Your task to perform on an android device: Open Google Image 0: 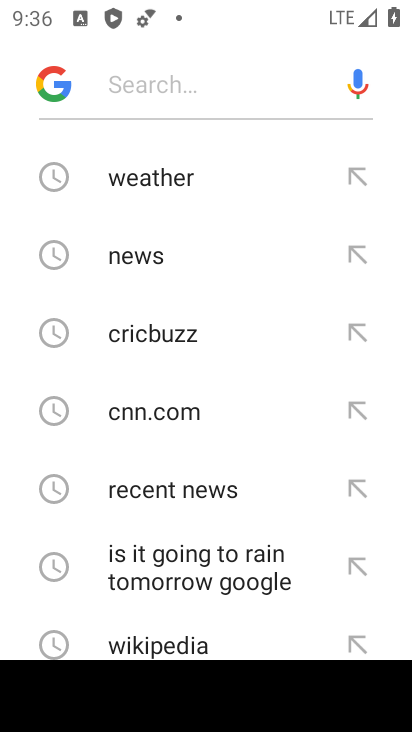
Step 0: click (215, 729)
Your task to perform on an android device: Open Google Image 1: 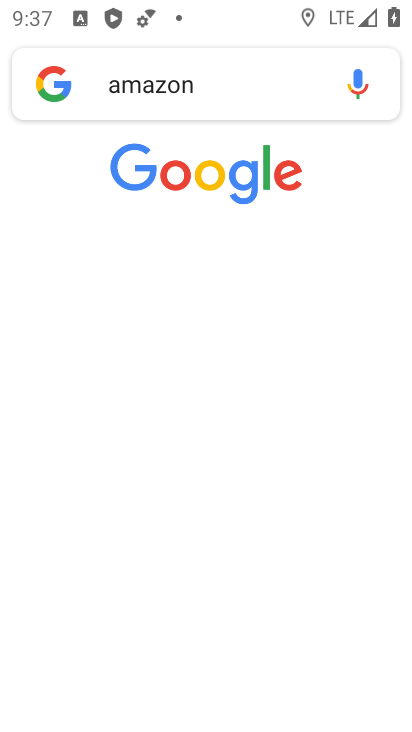
Step 1: press home button
Your task to perform on an android device: Open Google Image 2: 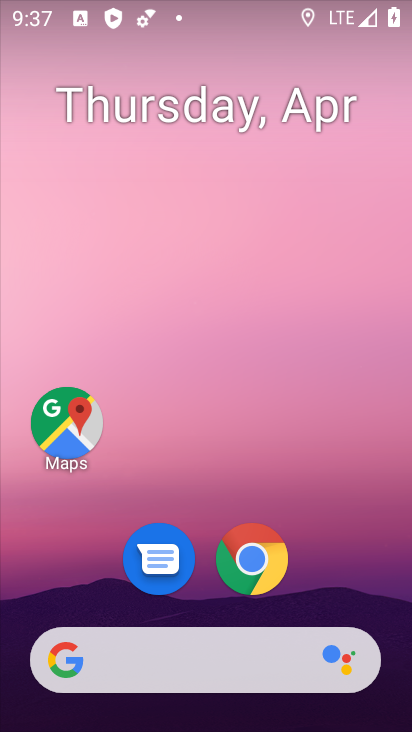
Step 2: drag from (213, 522) to (172, 143)
Your task to perform on an android device: Open Google Image 3: 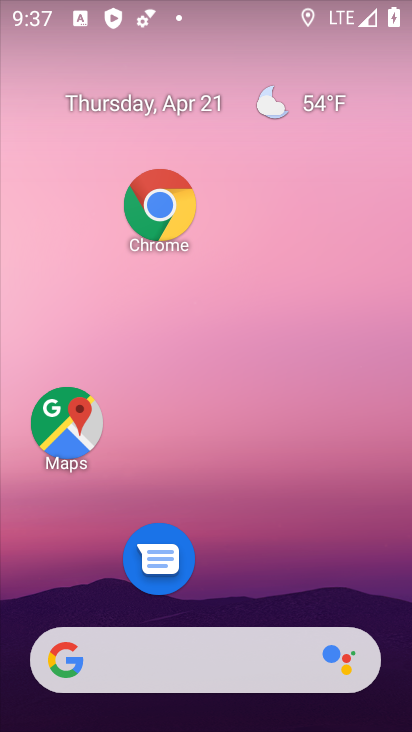
Step 3: drag from (216, 676) to (245, 105)
Your task to perform on an android device: Open Google Image 4: 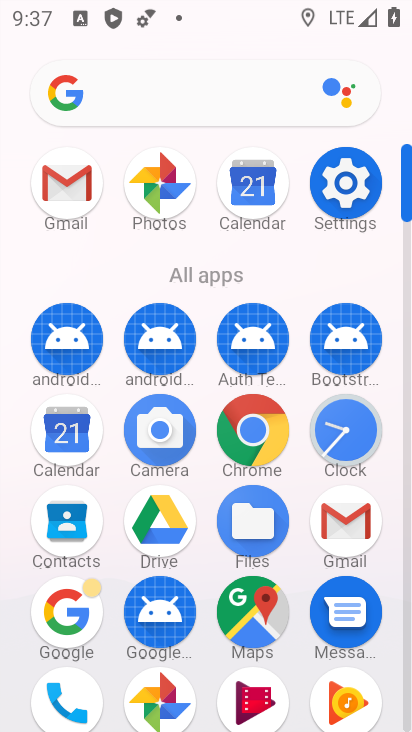
Step 4: click (70, 616)
Your task to perform on an android device: Open Google Image 5: 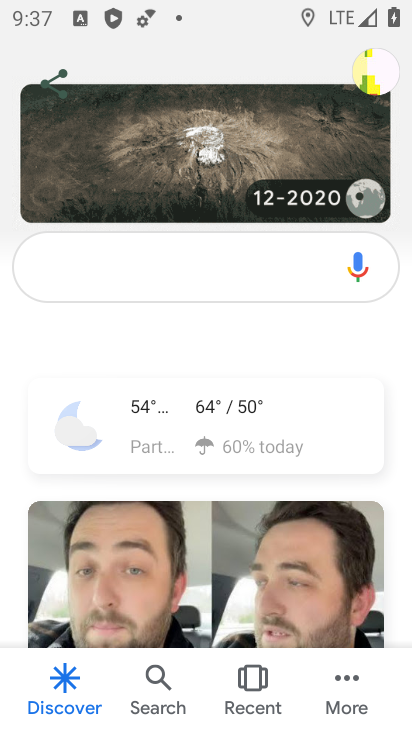
Step 5: task complete